Your task to perform on an android device: Search for Mexican restaurants on Maps Image 0: 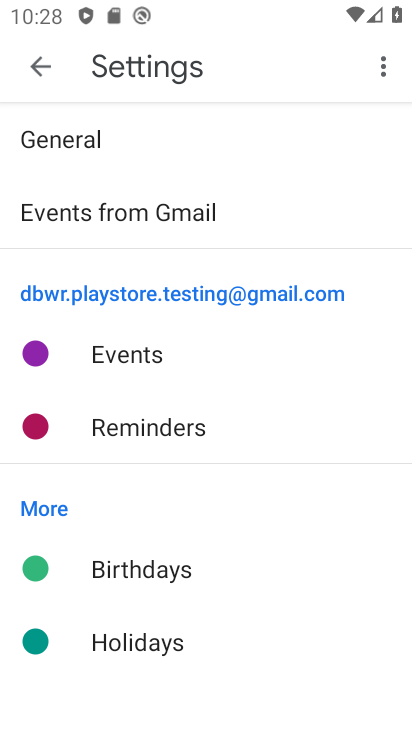
Step 0: press home button
Your task to perform on an android device: Search for Mexican restaurants on Maps Image 1: 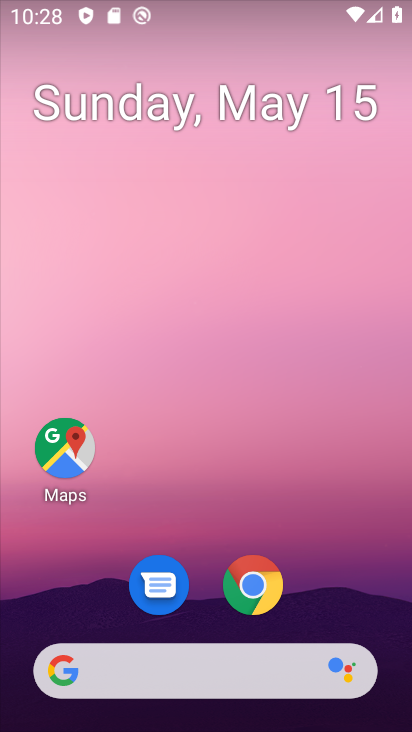
Step 1: drag from (208, 493) to (176, 59)
Your task to perform on an android device: Search for Mexican restaurants on Maps Image 2: 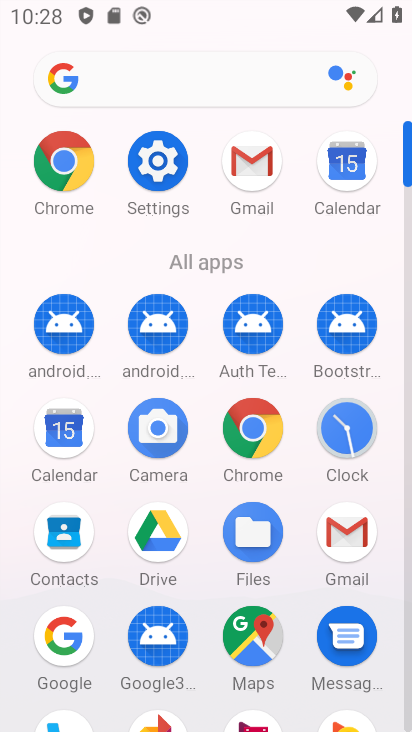
Step 2: click (250, 638)
Your task to perform on an android device: Search for Mexican restaurants on Maps Image 3: 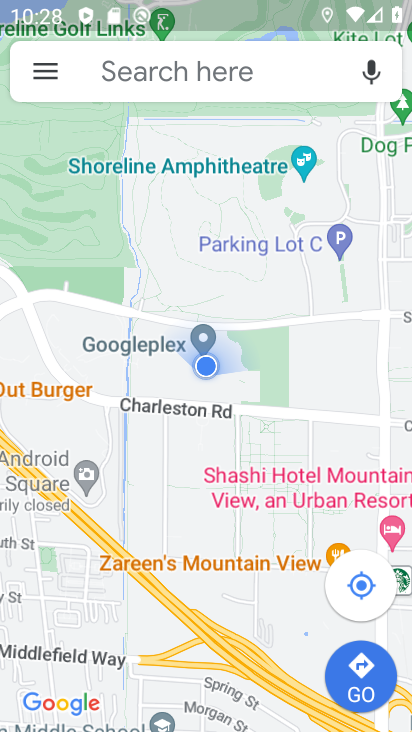
Step 3: click (198, 64)
Your task to perform on an android device: Search for Mexican restaurants on Maps Image 4: 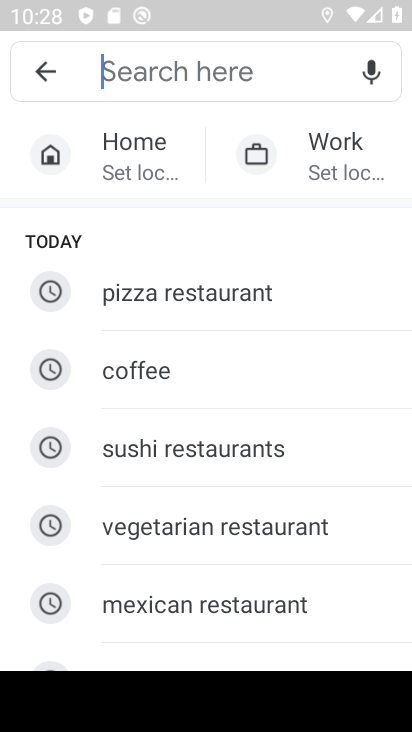
Step 4: click (180, 597)
Your task to perform on an android device: Search for Mexican restaurants on Maps Image 5: 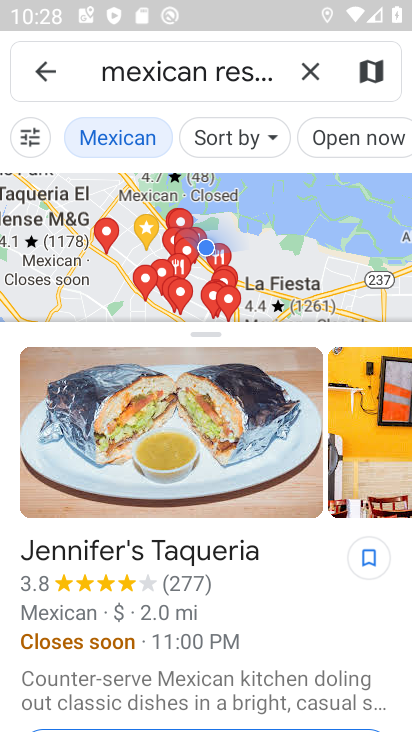
Step 5: task complete